Your task to perform on an android device: Clear the shopping cart on ebay.com. Add razer blade to the cart on ebay.com Image 0: 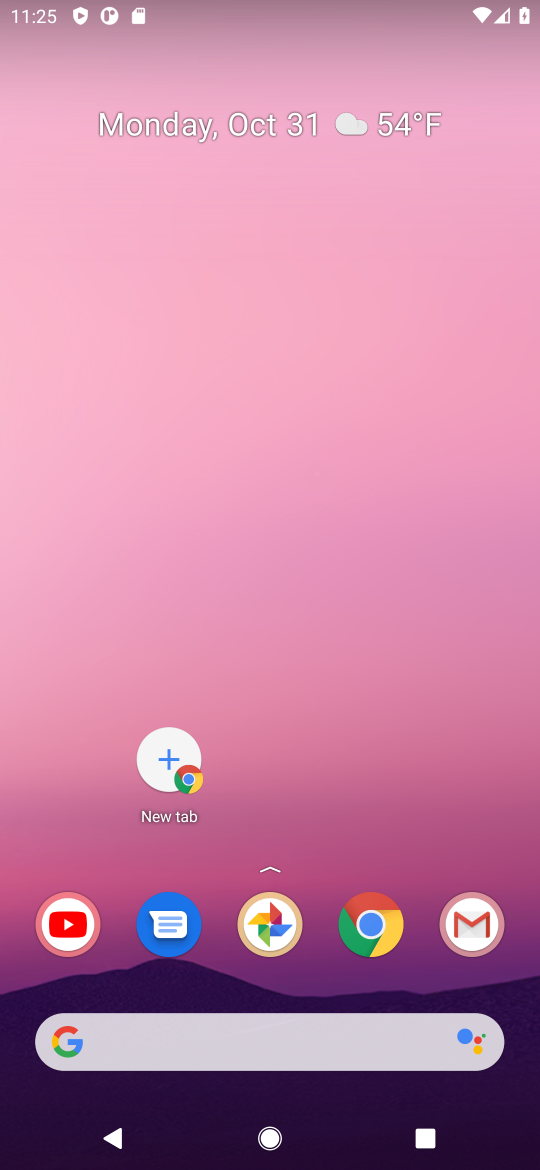
Step 0: press home button
Your task to perform on an android device: Clear the shopping cart on ebay.com. Add razer blade to the cart on ebay.com Image 1: 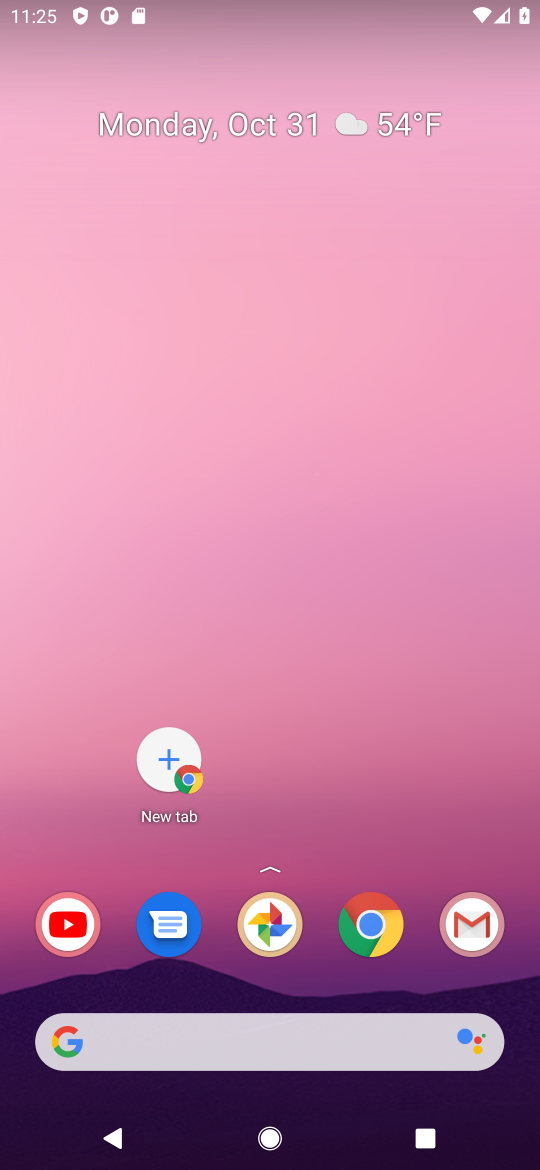
Step 1: click (181, 784)
Your task to perform on an android device: Clear the shopping cart on ebay.com. Add razer blade to the cart on ebay.com Image 2: 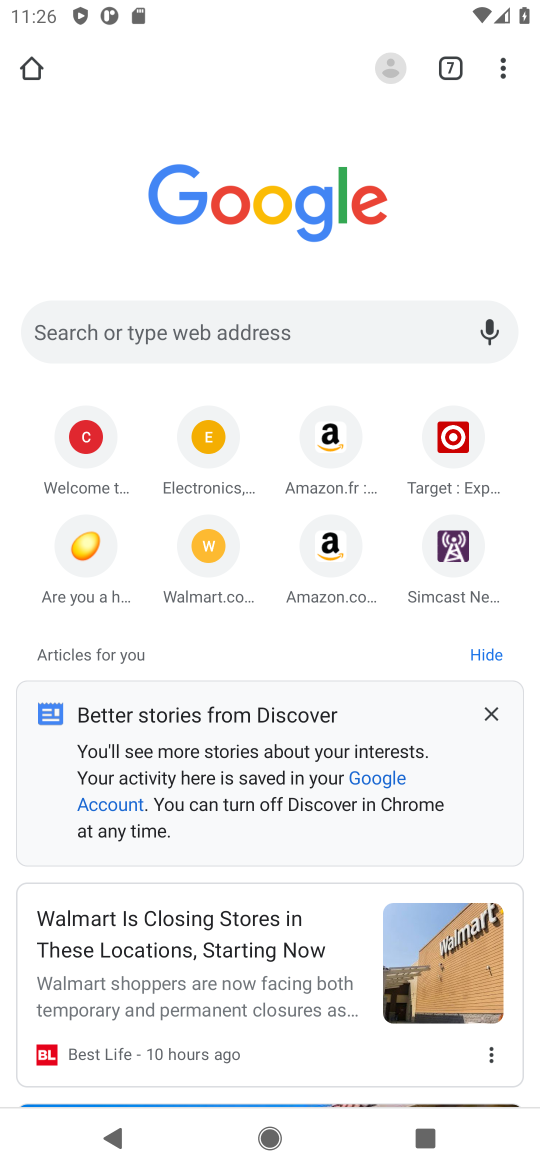
Step 2: click (269, 343)
Your task to perform on an android device: Clear the shopping cart on ebay.com. Add razer blade to the cart on ebay.com Image 3: 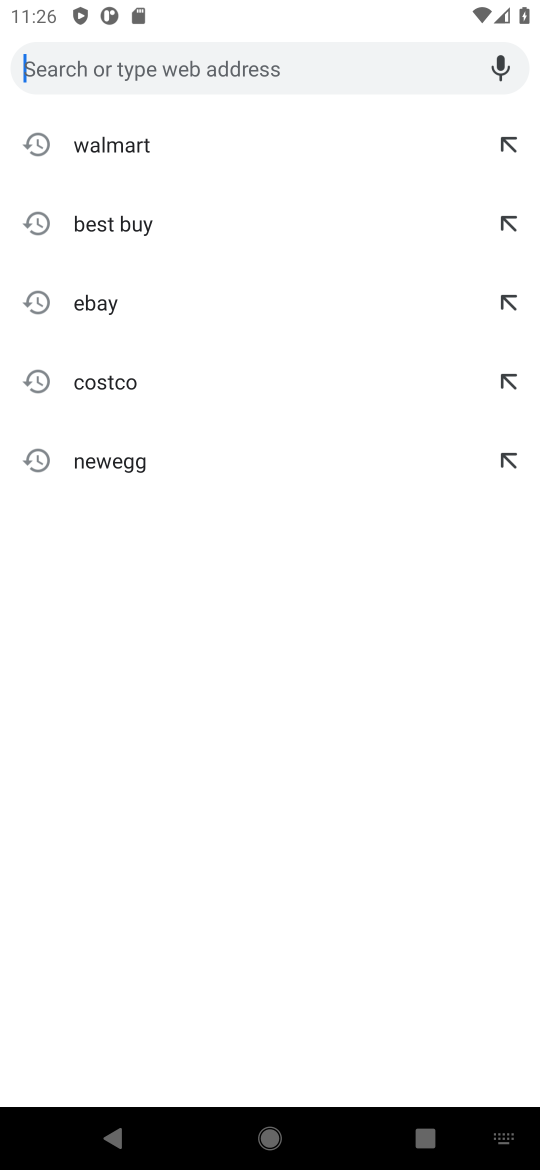
Step 3: type "ebay.com"
Your task to perform on an android device: Clear the shopping cart on ebay.com. Add razer blade to the cart on ebay.com Image 4: 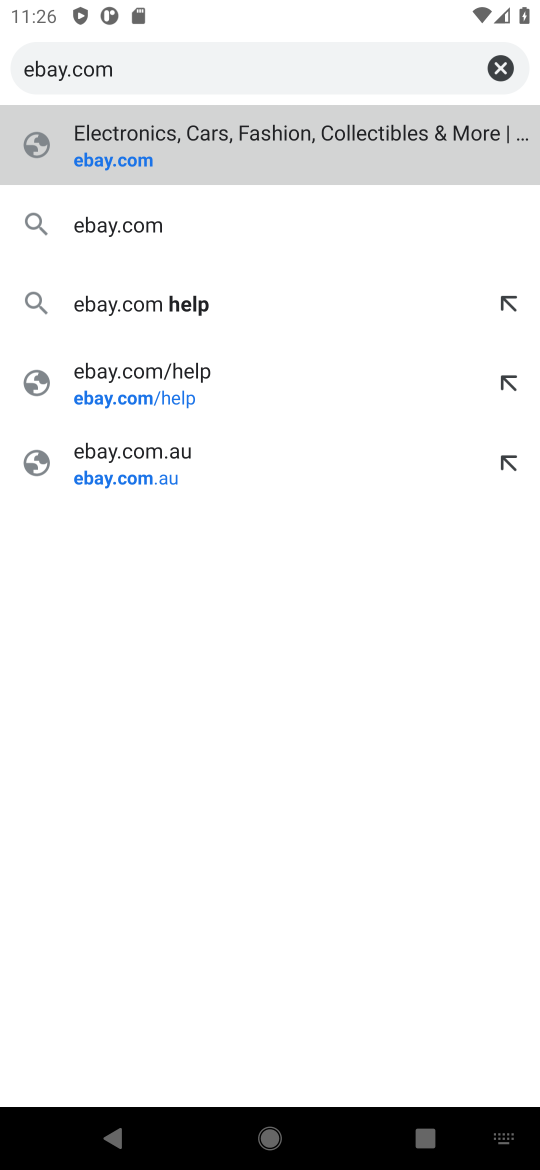
Step 4: type ""
Your task to perform on an android device: Clear the shopping cart on ebay.com. Add razer blade to the cart on ebay.com Image 5: 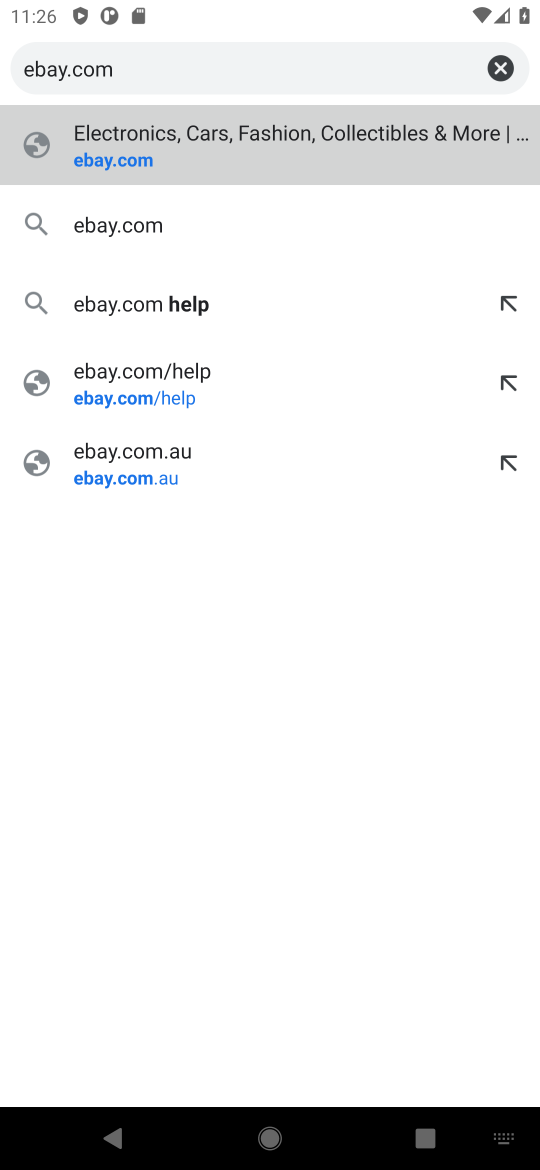
Step 5: click (267, 148)
Your task to perform on an android device: Clear the shopping cart on ebay.com. Add razer blade to the cart on ebay.com Image 6: 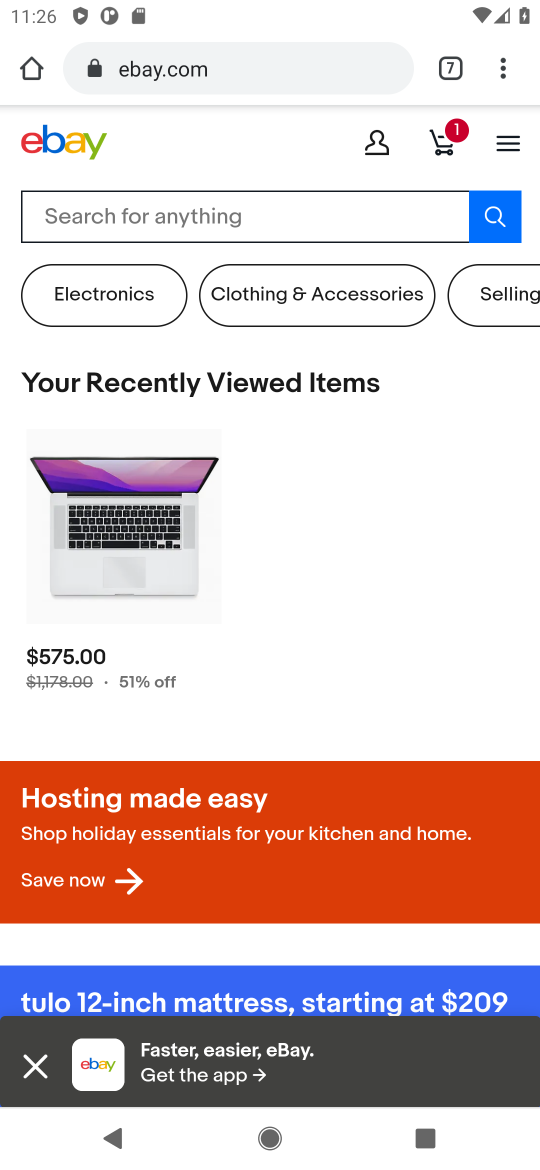
Step 6: click (173, 217)
Your task to perform on an android device: Clear the shopping cart on ebay.com. Add razer blade to the cart on ebay.com Image 7: 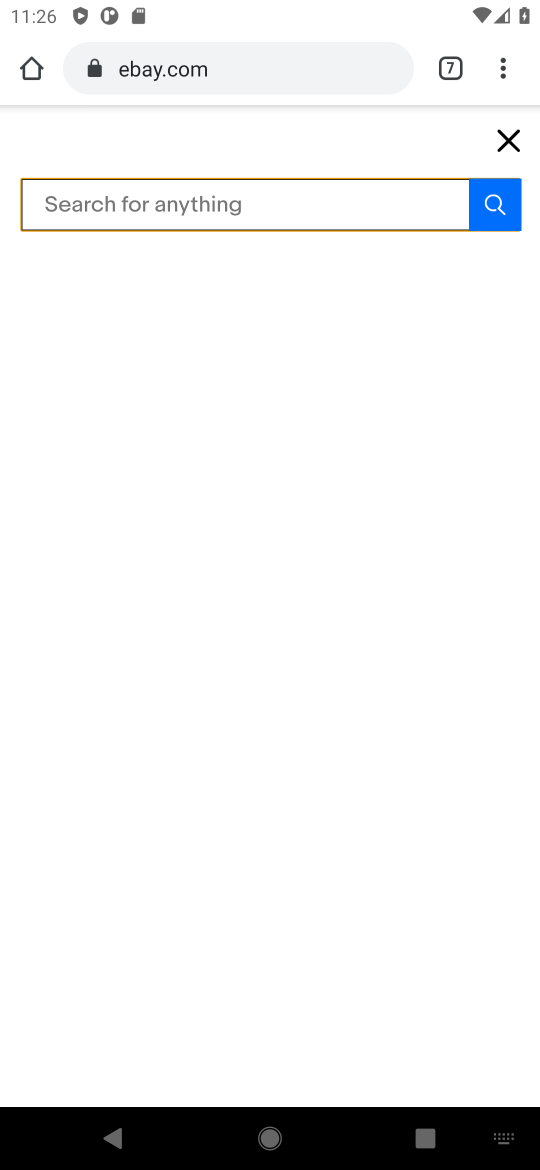
Step 7: type "razer blade"
Your task to perform on an android device: Clear the shopping cart on ebay.com. Add razer blade to the cart on ebay.com Image 8: 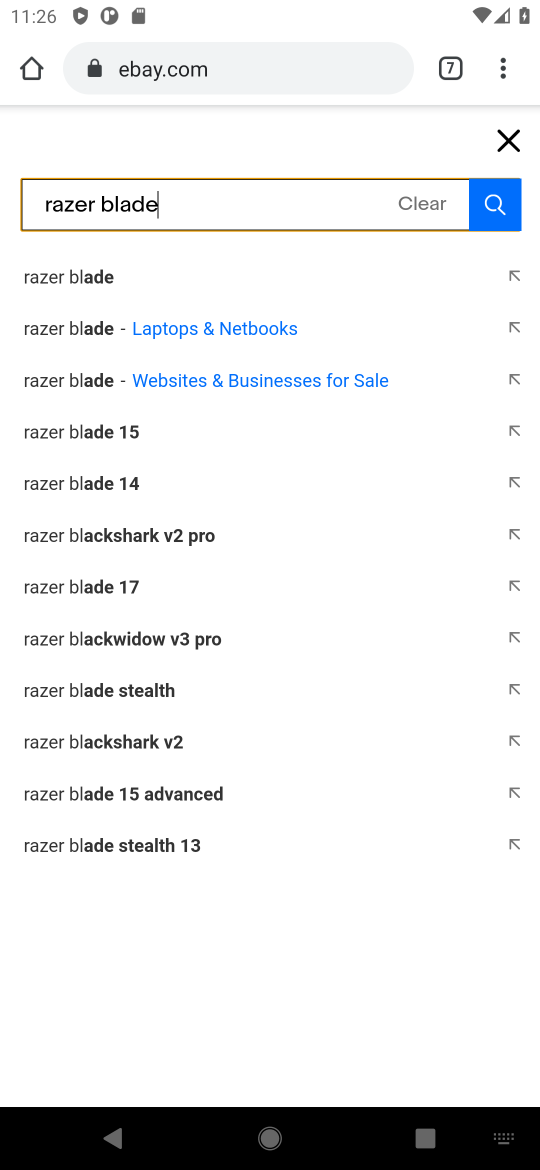
Step 8: click (92, 278)
Your task to perform on an android device: Clear the shopping cart on ebay.com. Add razer blade to the cart on ebay.com Image 9: 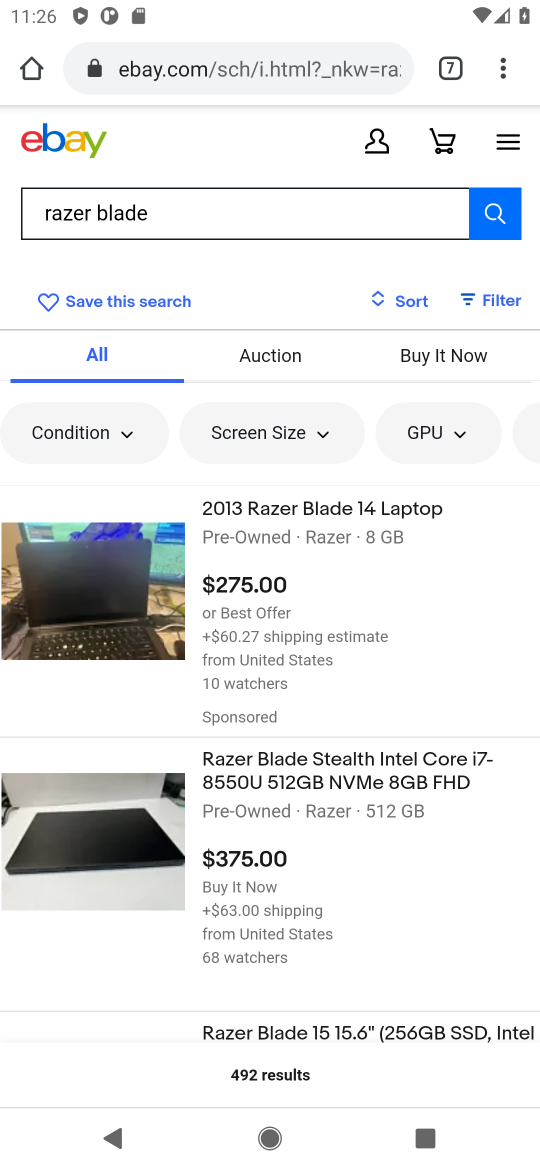
Step 9: drag from (299, 818) to (309, 643)
Your task to perform on an android device: Clear the shopping cart on ebay.com. Add razer blade to the cart on ebay.com Image 10: 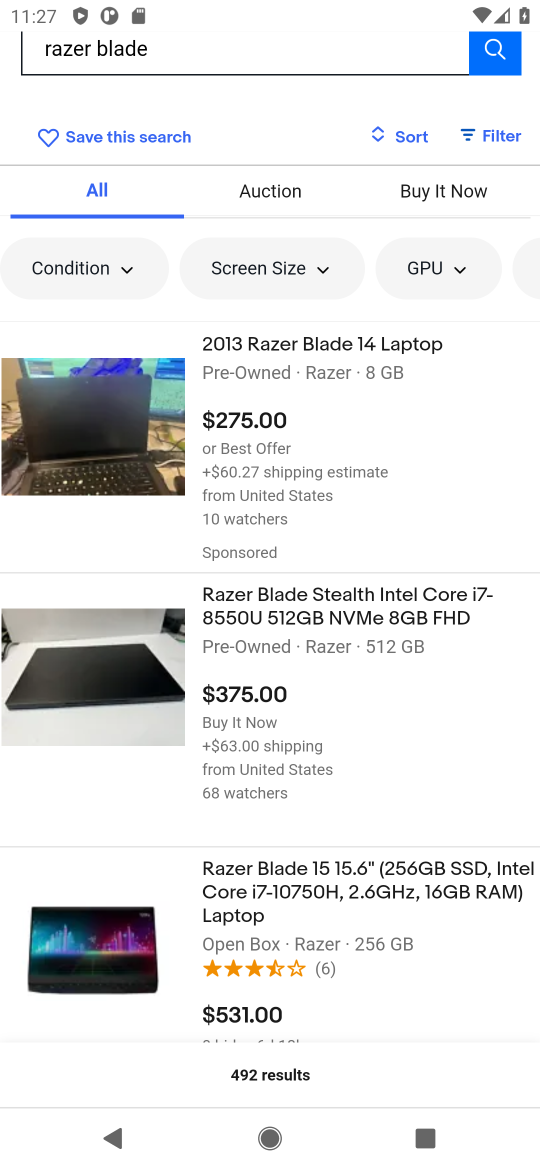
Step 10: click (253, 622)
Your task to perform on an android device: Clear the shopping cart on ebay.com. Add razer blade to the cart on ebay.com Image 11: 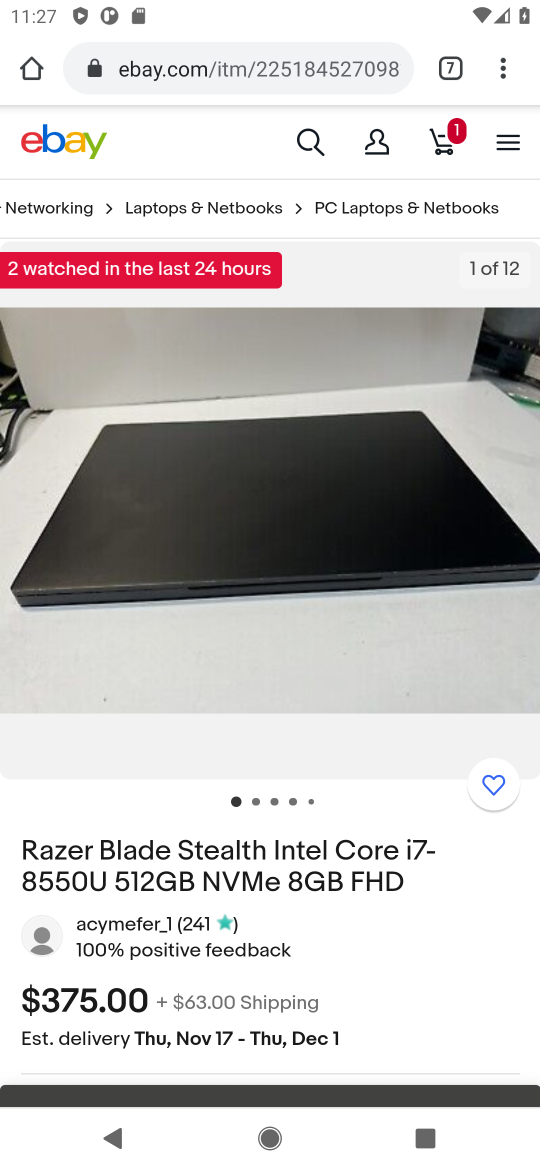
Step 11: click (448, 147)
Your task to perform on an android device: Clear the shopping cart on ebay.com. Add razer blade to the cart on ebay.com Image 12: 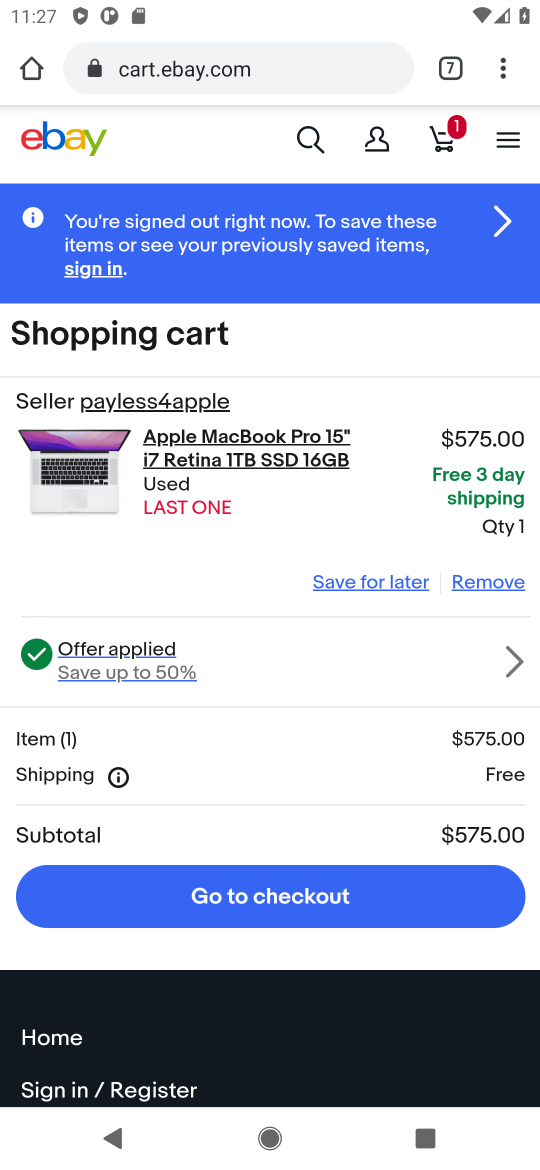
Step 12: drag from (362, 666) to (359, 848)
Your task to perform on an android device: Clear the shopping cart on ebay.com. Add razer blade to the cart on ebay.com Image 13: 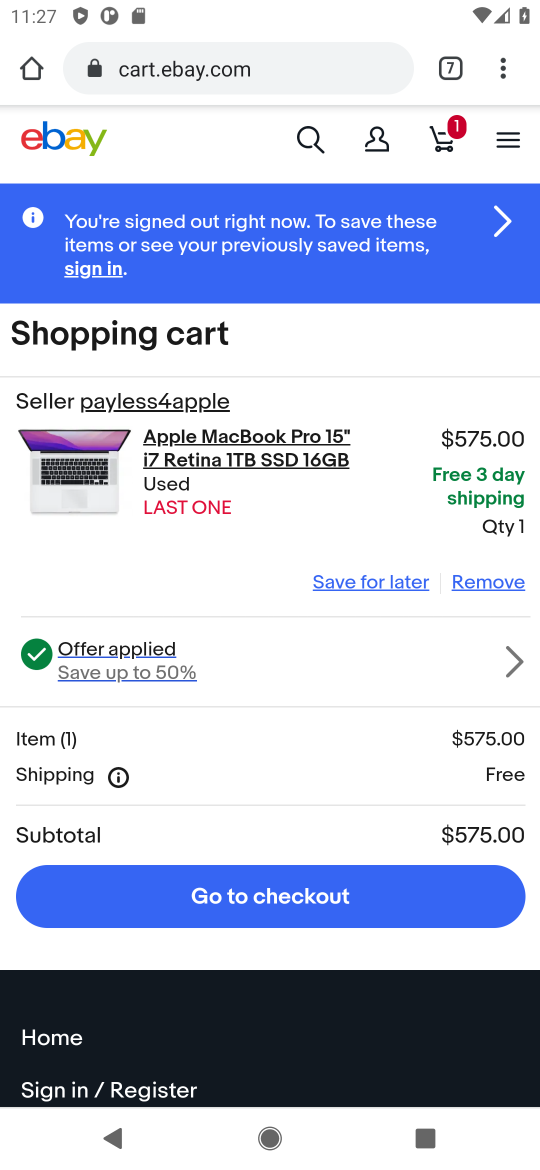
Step 13: click (499, 585)
Your task to perform on an android device: Clear the shopping cart on ebay.com. Add razer blade to the cart on ebay.com Image 14: 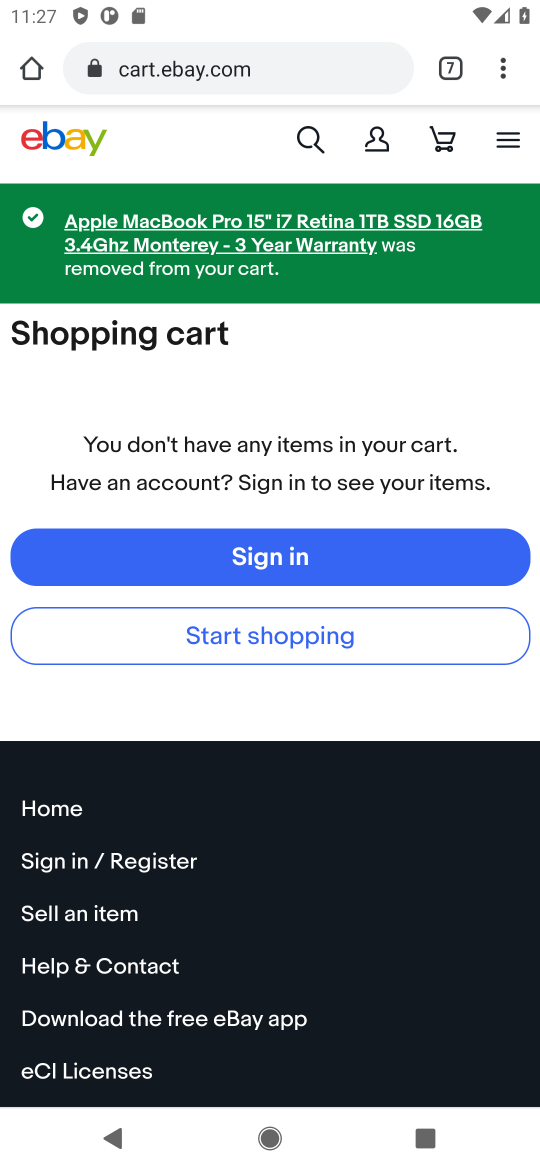
Step 14: press back button
Your task to perform on an android device: Clear the shopping cart on ebay.com. Add razer blade to the cart on ebay.com Image 15: 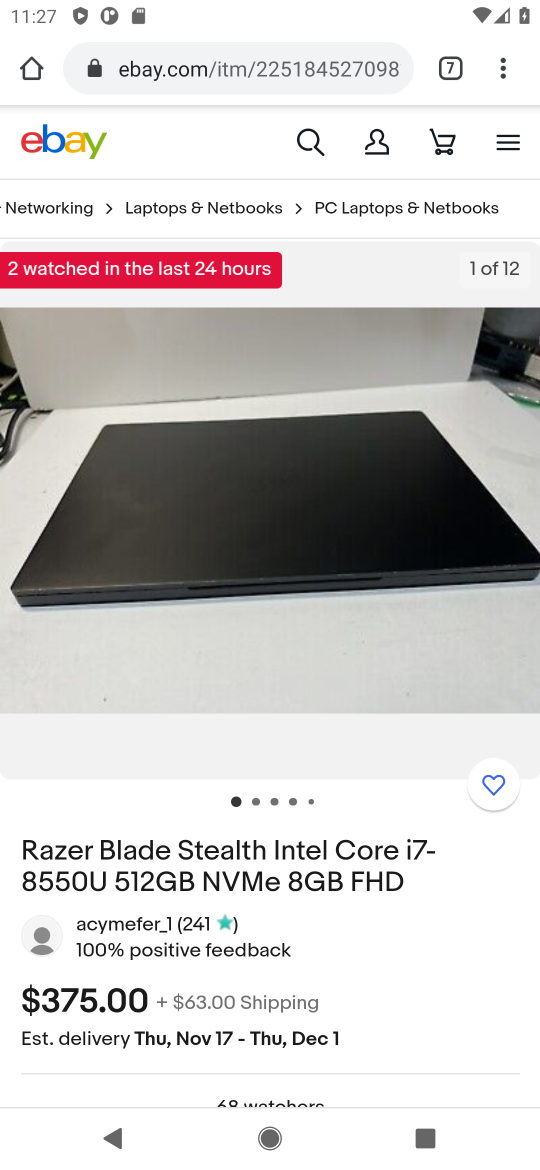
Step 15: drag from (318, 871) to (364, 533)
Your task to perform on an android device: Clear the shopping cart on ebay.com. Add razer blade to the cart on ebay.com Image 16: 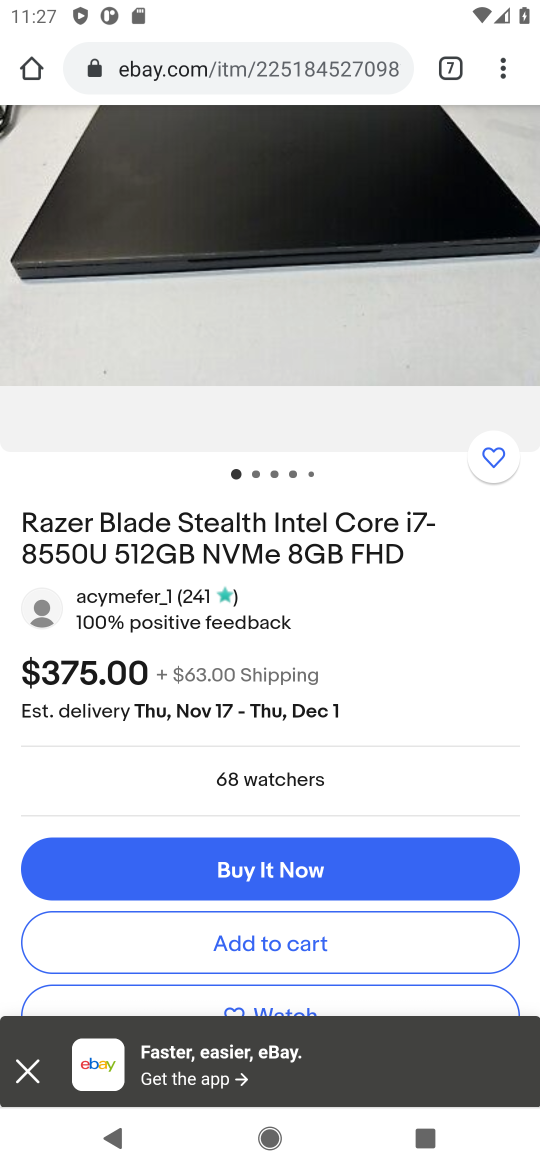
Step 16: click (329, 953)
Your task to perform on an android device: Clear the shopping cart on ebay.com. Add razer blade to the cart on ebay.com Image 17: 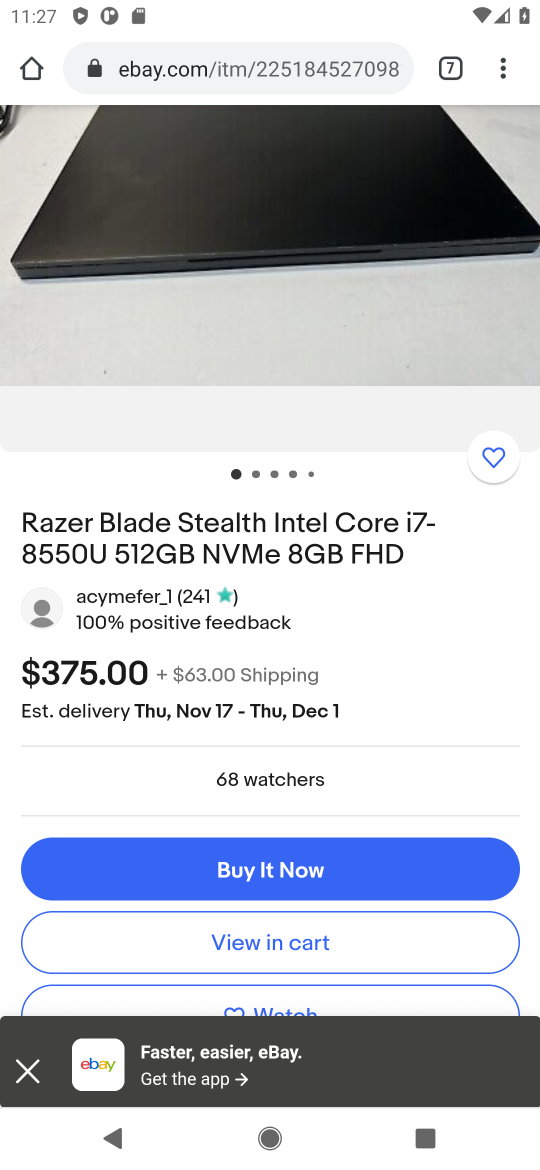
Step 17: drag from (373, 613) to (437, 482)
Your task to perform on an android device: Clear the shopping cart on ebay.com. Add razer blade to the cart on ebay.com Image 18: 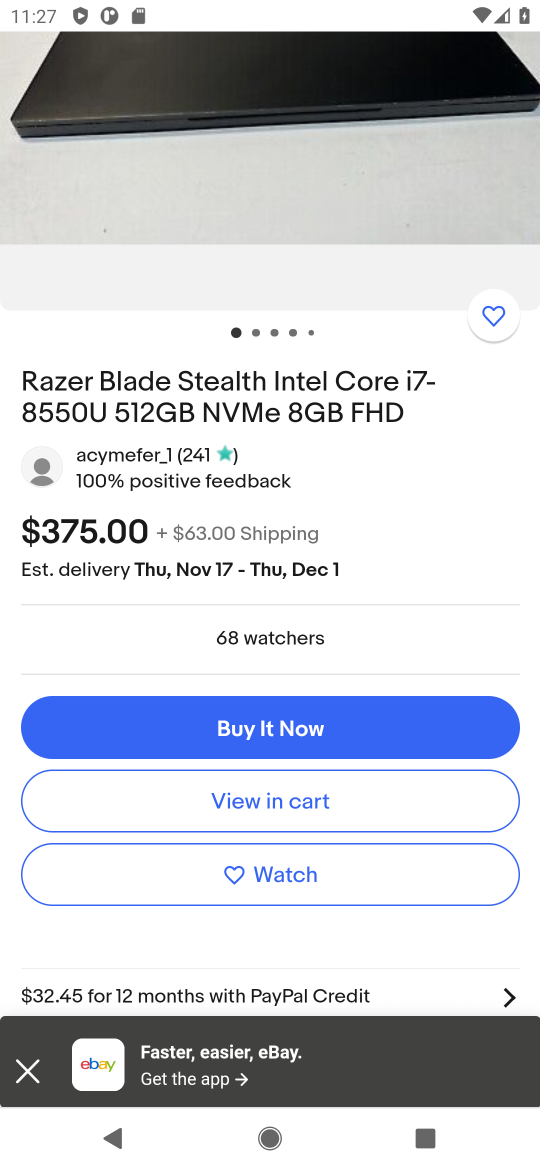
Step 18: click (316, 804)
Your task to perform on an android device: Clear the shopping cart on ebay.com. Add razer blade to the cart on ebay.com Image 19: 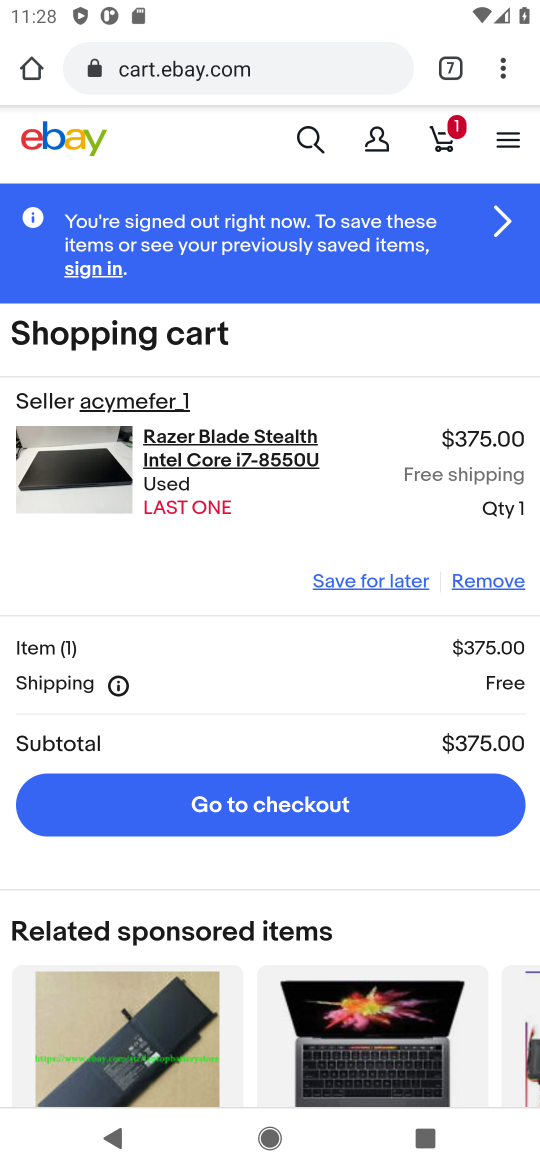
Step 19: task complete